Your task to perform on an android device: Open calendar and show me the fourth week of next month Image 0: 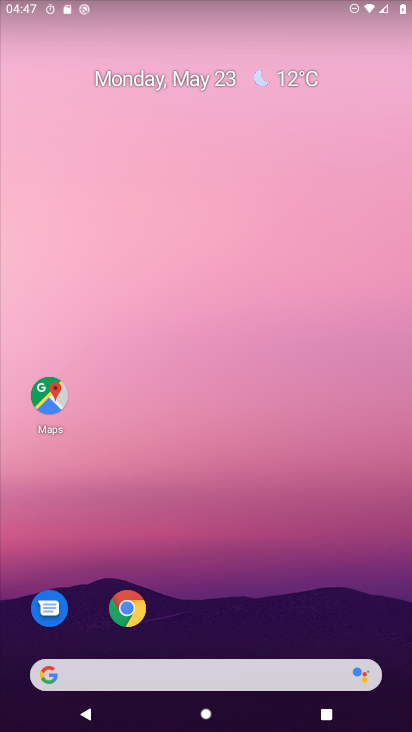
Step 0: drag from (261, 551) to (236, 0)
Your task to perform on an android device: Open calendar and show me the fourth week of next month Image 1: 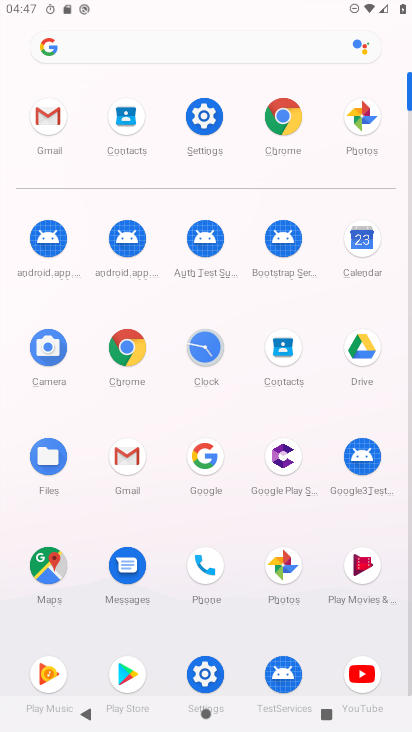
Step 1: click (354, 242)
Your task to perform on an android device: Open calendar and show me the fourth week of next month Image 2: 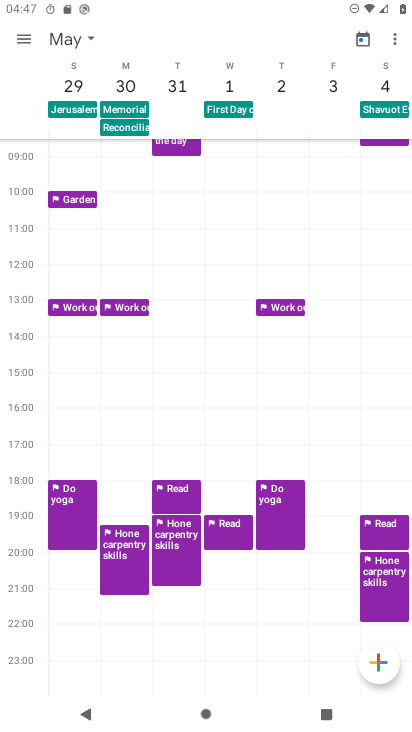
Step 2: click (83, 43)
Your task to perform on an android device: Open calendar and show me the fourth week of next month Image 3: 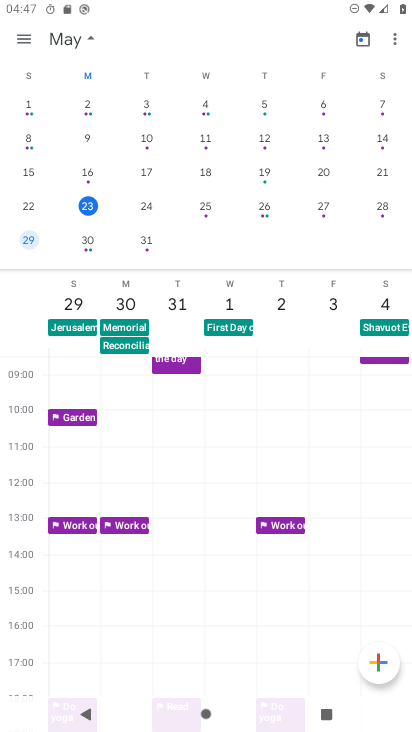
Step 3: drag from (368, 198) to (15, 231)
Your task to perform on an android device: Open calendar and show me the fourth week of next month Image 4: 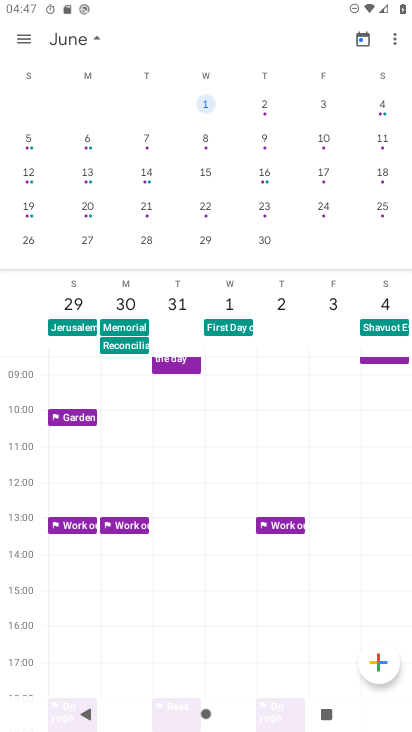
Step 4: click (39, 205)
Your task to perform on an android device: Open calendar and show me the fourth week of next month Image 5: 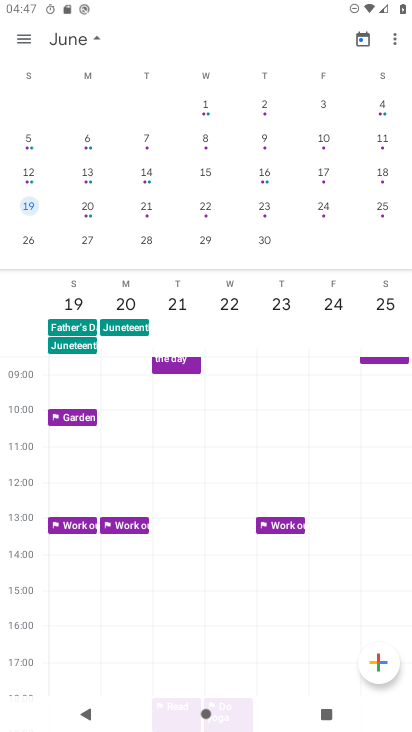
Step 5: task complete